Your task to perform on an android device: turn vacation reply on in the gmail app Image 0: 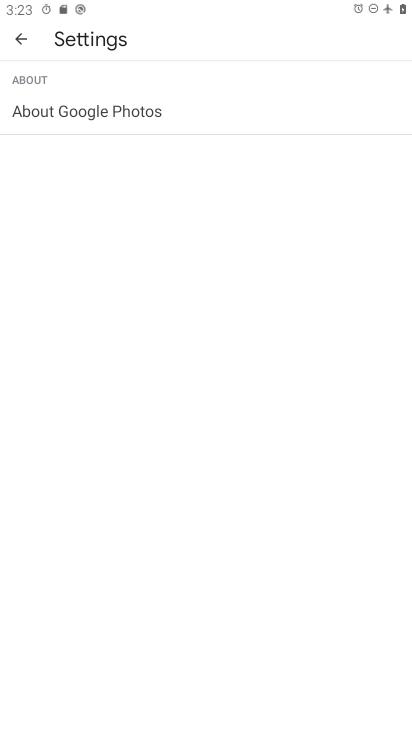
Step 0: press home button
Your task to perform on an android device: turn vacation reply on in the gmail app Image 1: 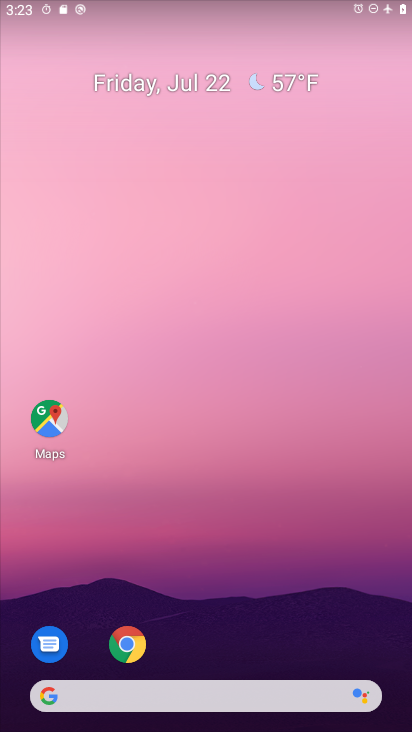
Step 1: drag from (176, 657) to (203, 188)
Your task to perform on an android device: turn vacation reply on in the gmail app Image 2: 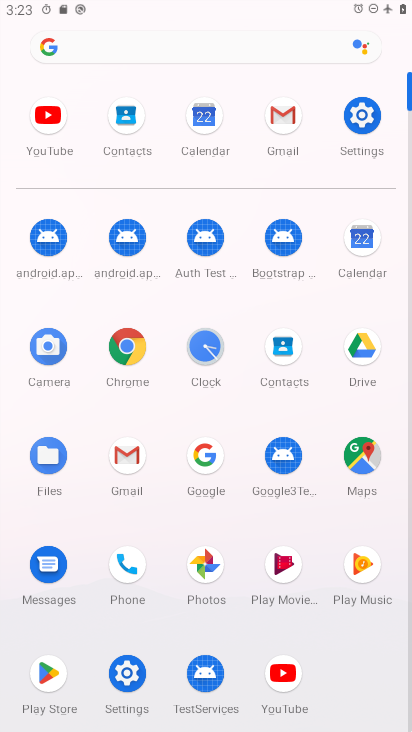
Step 2: click (266, 136)
Your task to perform on an android device: turn vacation reply on in the gmail app Image 3: 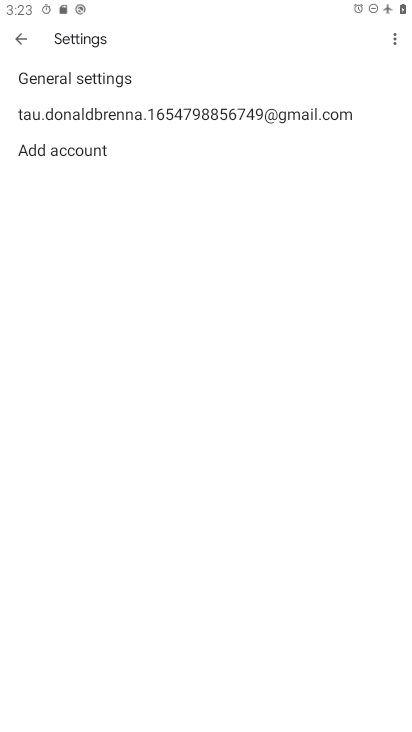
Step 3: click (102, 111)
Your task to perform on an android device: turn vacation reply on in the gmail app Image 4: 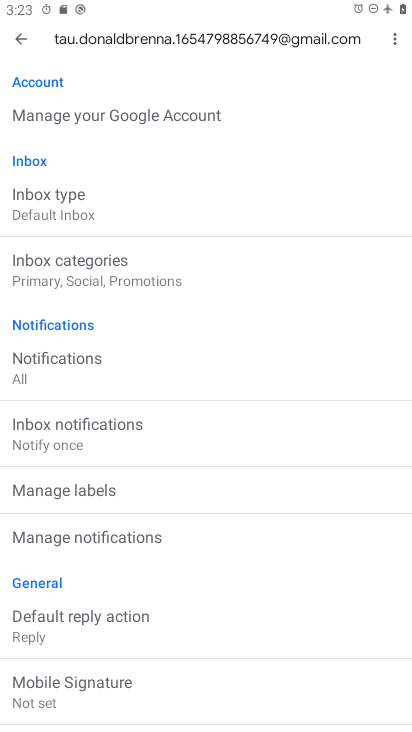
Step 4: drag from (142, 616) to (181, 202)
Your task to perform on an android device: turn vacation reply on in the gmail app Image 5: 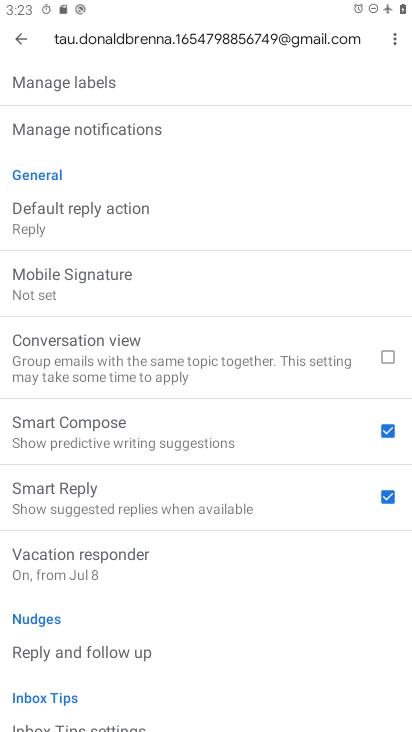
Step 5: drag from (157, 678) to (169, 380)
Your task to perform on an android device: turn vacation reply on in the gmail app Image 6: 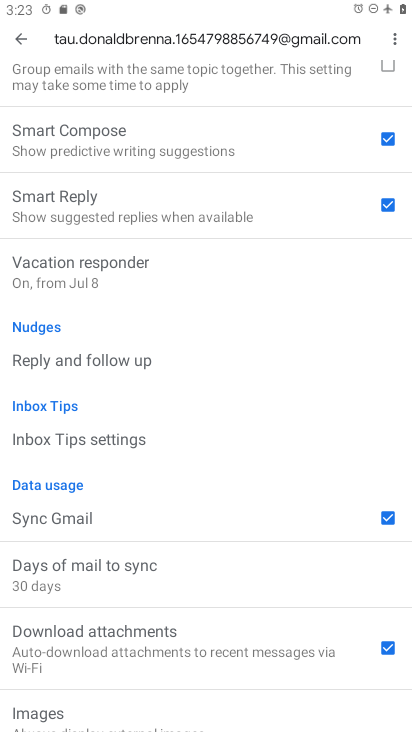
Step 6: click (93, 271)
Your task to perform on an android device: turn vacation reply on in the gmail app Image 7: 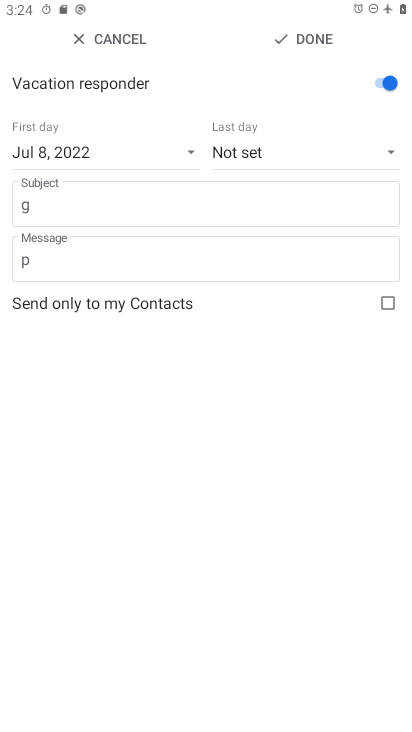
Step 7: task complete